Your task to perform on an android device: toggle pop-ups in chrome Image 0: 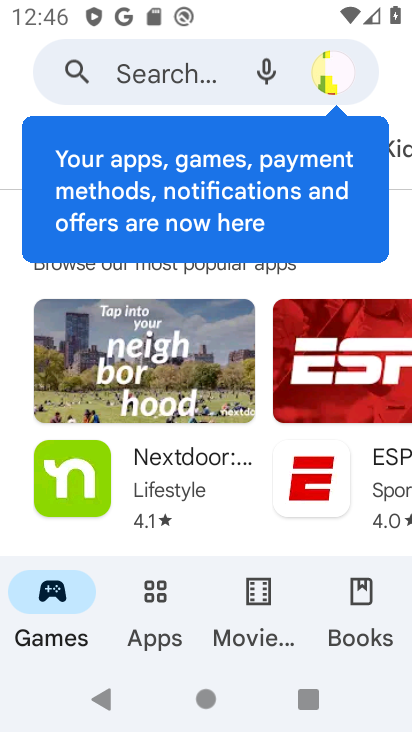
Step 0: press home button
Your task to perform on an android device: toggle pop-ups in chrome Image 1: 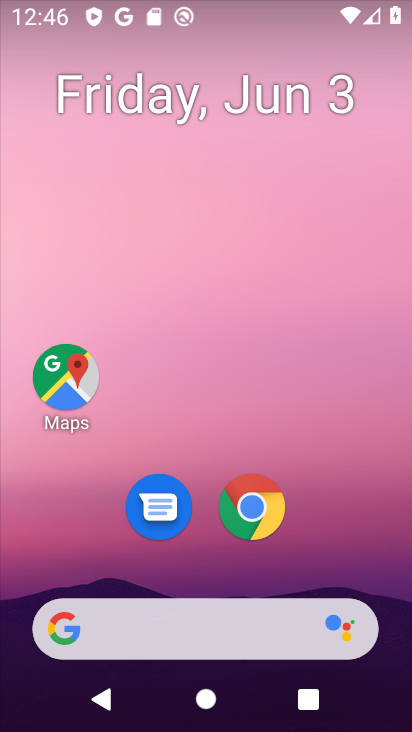
Step 1: drag from (369, 553) to (320, 179)
Your task to perform on an android device: toggle pop-ups in chrome Image 2: 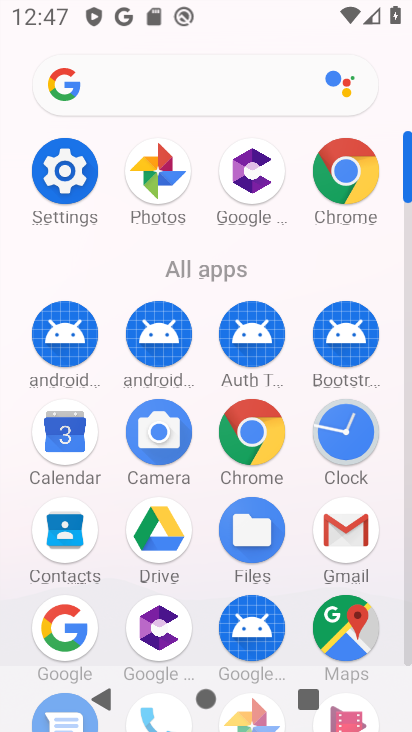
Step 2: click (341, 192)
Your task to perform on an android device: toggle pop-ups in chrome Image 3: 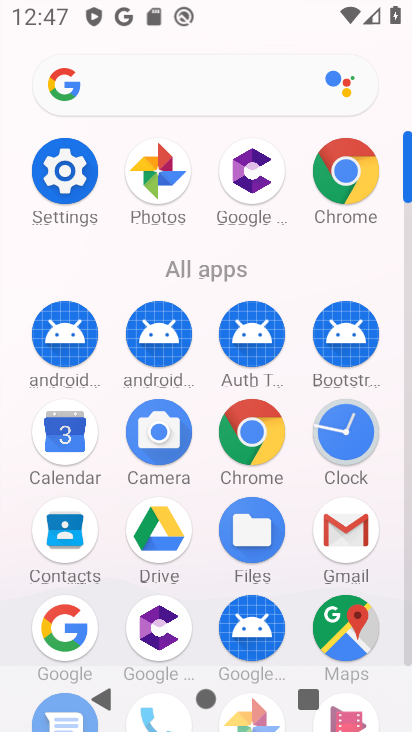
Step 3: click (360, 178)
Your task to perform on an android device: toggle pop-ups in chrome Image 4: 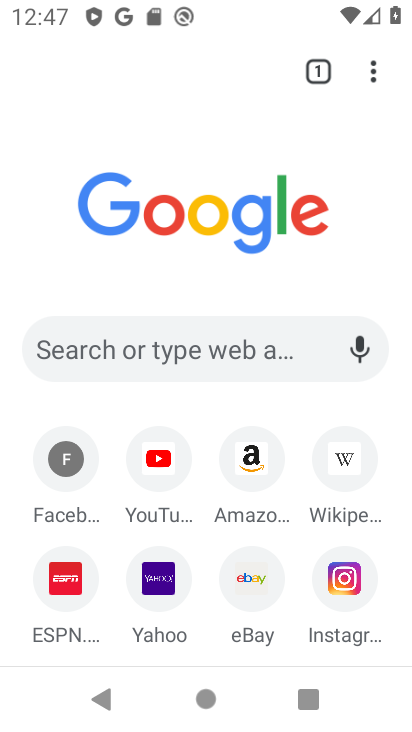
Step 4: click (377, 84)
Your task to perform on an android device: toggle pop-ups in chrome Image 5: 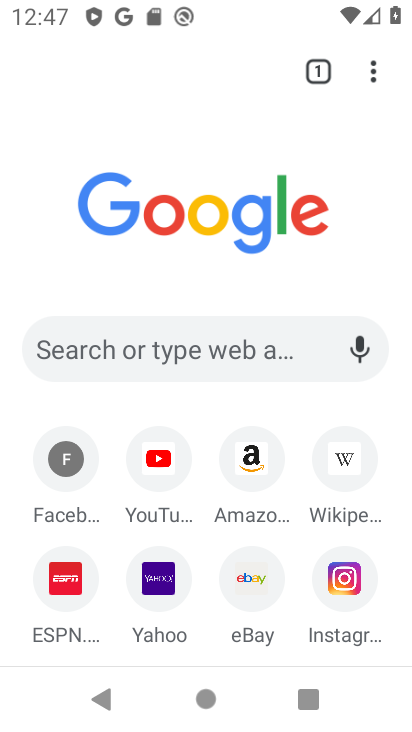
Step 5: click (376, 85)
Your task to perform on an android device: toggle pop-ups in chrome Image 6: 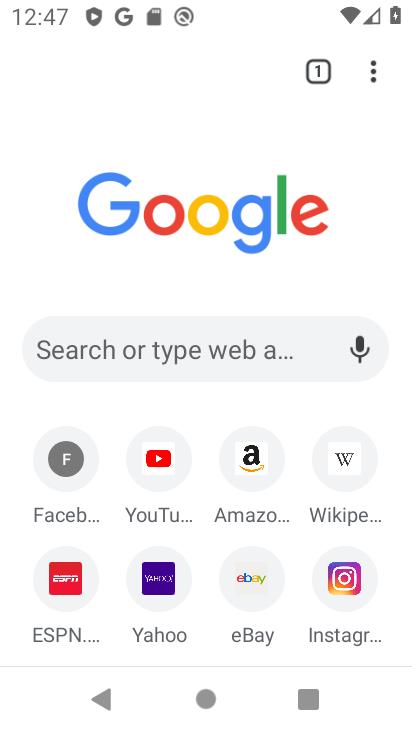
Step 6: drag from (376, 85) to (168, 513)
Your task to perform on an android device: toggle pop-ups in chrome Image 7: 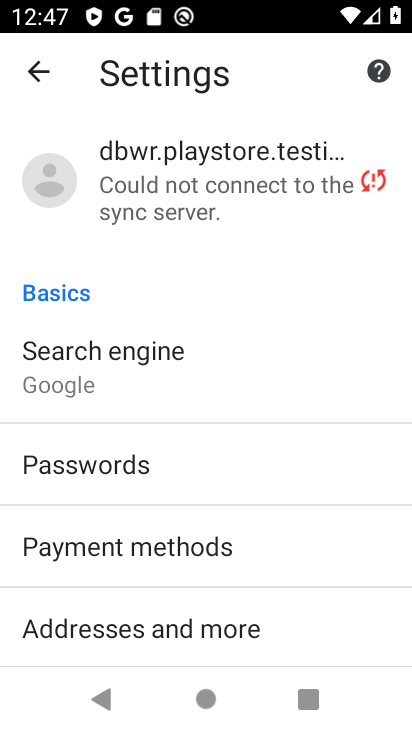
Step 7: drag from (354, 638) to (323, 244)
Your task to perform on an android device: toggle pop-ups in chrome Image 8: 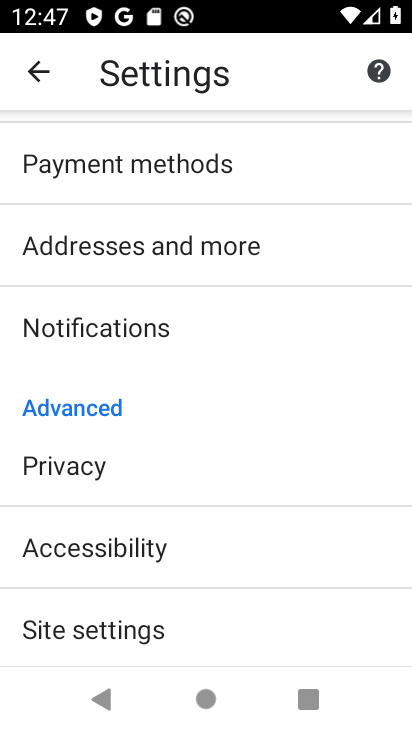
Step 8: drag from (307, 543) to (306, 219)
Your task to perform on an android device: toggle pop-ups in chrome Image 9: 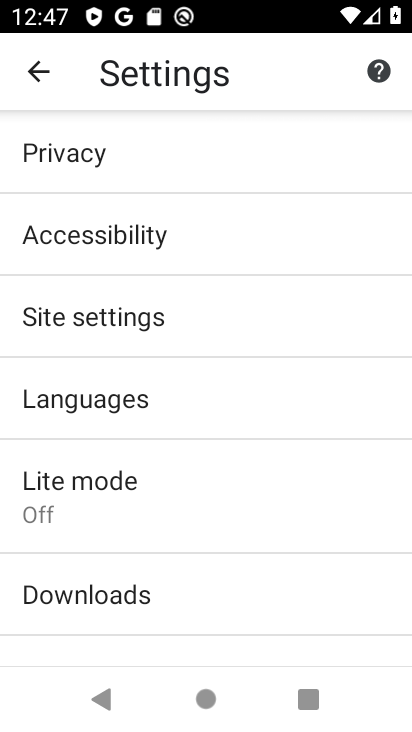
Step 9: drag from (289, 641) to (294, 313)
Your task to perform on an android device: toggle pop-ups in chrome Image 10: 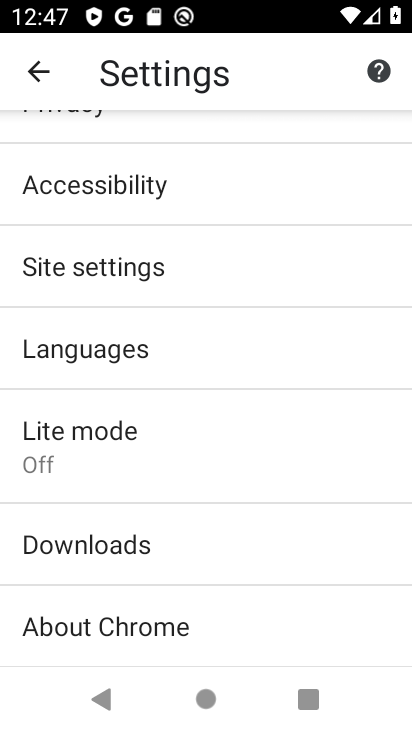
Step 10: click (195, 265)
Your task to perform on an android device: toggle pop-ups in chrome Image 11: 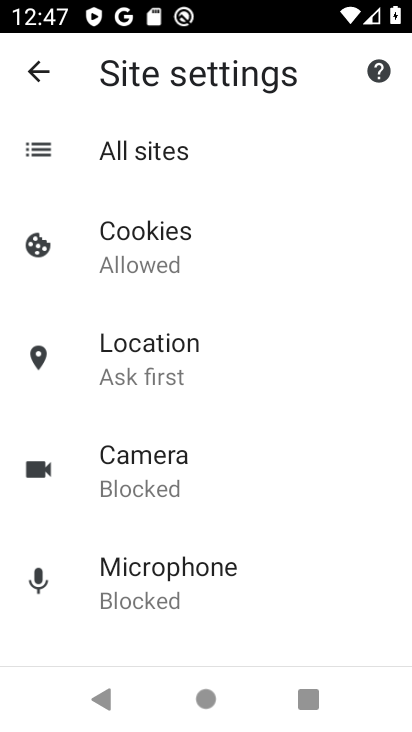
Step 11: drag from (234, 566) to (234, 259)
Your task to perform on an android device: toggle pop-ups in chrome Image 12: 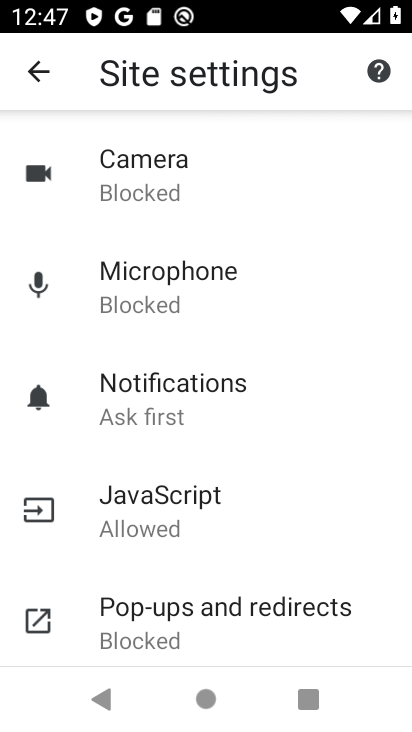
Step 12: click (227, 610)
Your task to perform on an android device: toggle pop-ups in chrome Image 13: 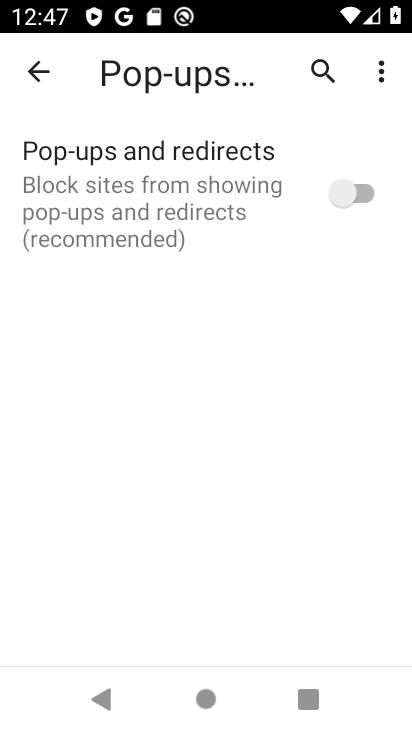
Step 13: click (347, 196)
Your task to perform on an android device: toggle pop-ups in chrome Image 14: 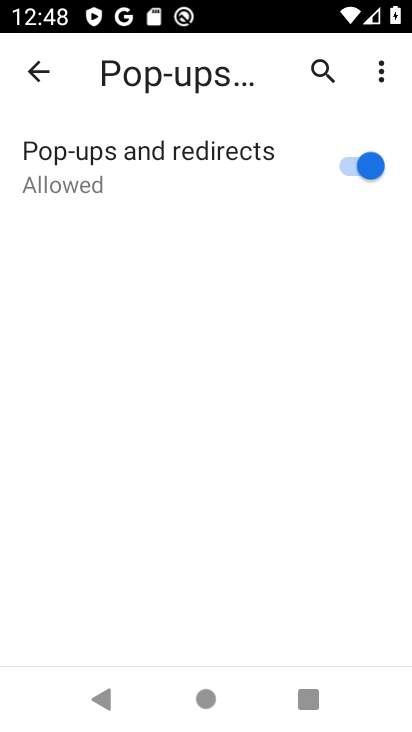
Step 14: task complete